Your task to perform on an android device: turn on airplane mode Image 0: 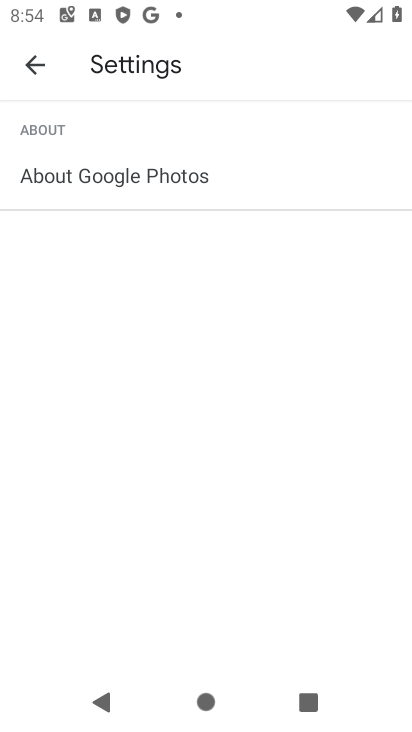
Step 0: drag from (266, 8) to (176, 469)
Your task to perform on an android device: turn on airplane mode Image 1: 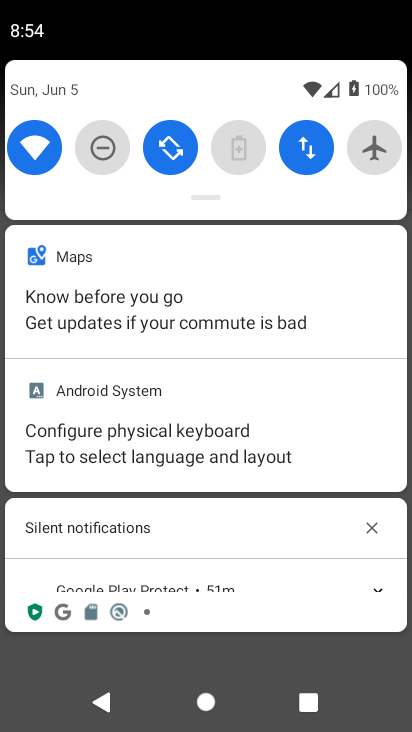
Step 1: click (375, 149)
Your task to perform on an android device: turn on airplane mode Image 2: 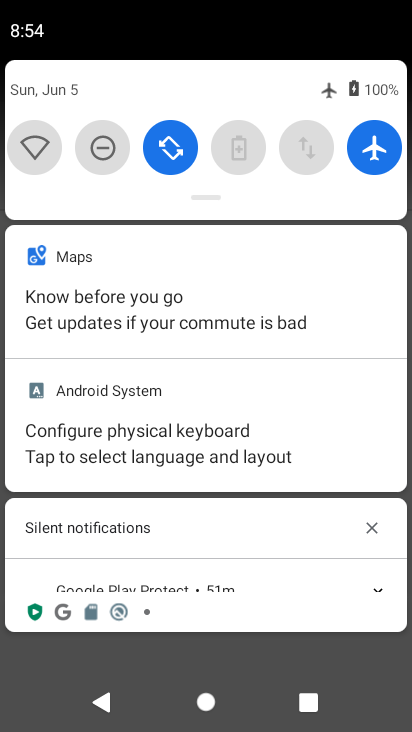
Step 2: task complete